Your task to perform on an android device: Find coffee shops on Maps Image 0: 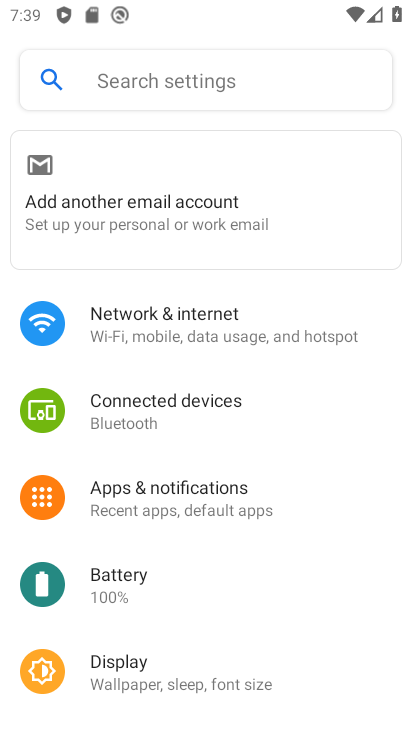
Step 0: press home button
Your task to perform on an android device: Find coffee shops on Maps Image 1: 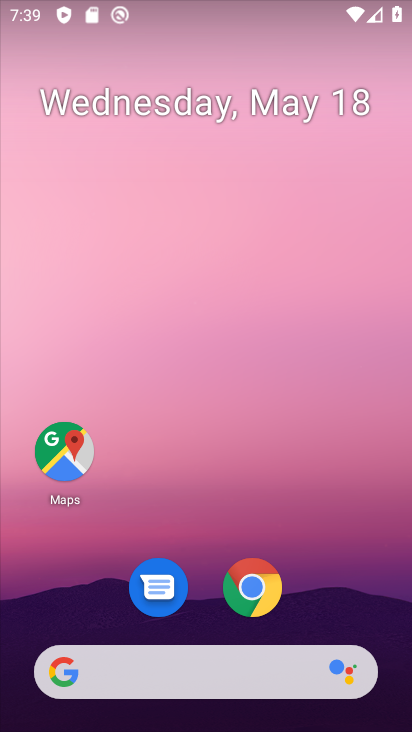
Step 1: click (66, 471)
Your task to perform on an android device: Find coffee shops on Maps Image 2: 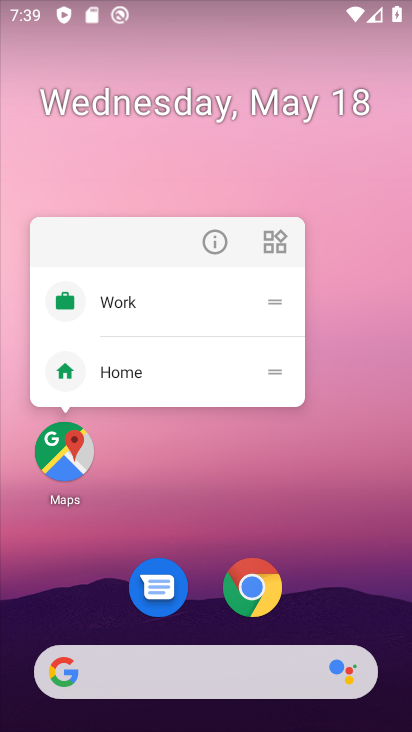
Step 2: click (137, 372)
Your task to perform on an android device: Find coffee shops on Maps Image 3: 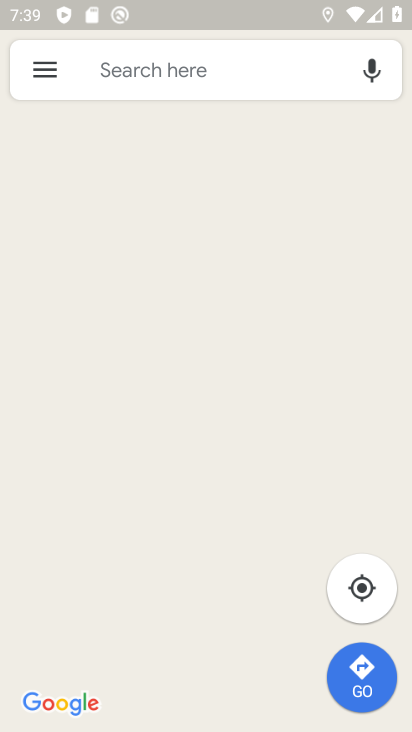
Step 3: click (126, 67)
Your task to perform on an android device: Find coffee shops on Maps Image 4: 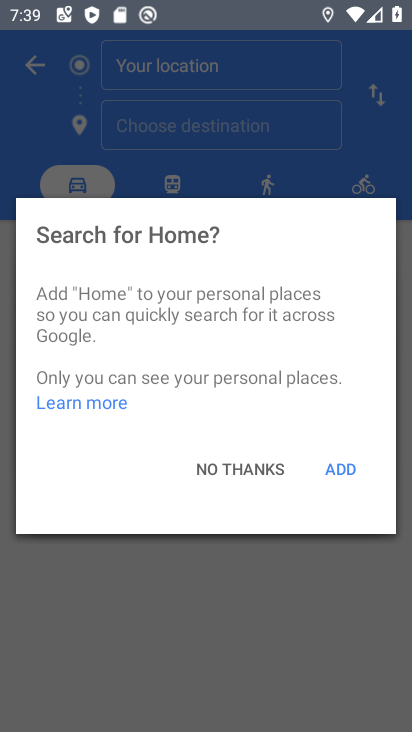
Step 4: click (236, 482)
Your task to perform on an android device: Find coffee shops on Maps Image 5: 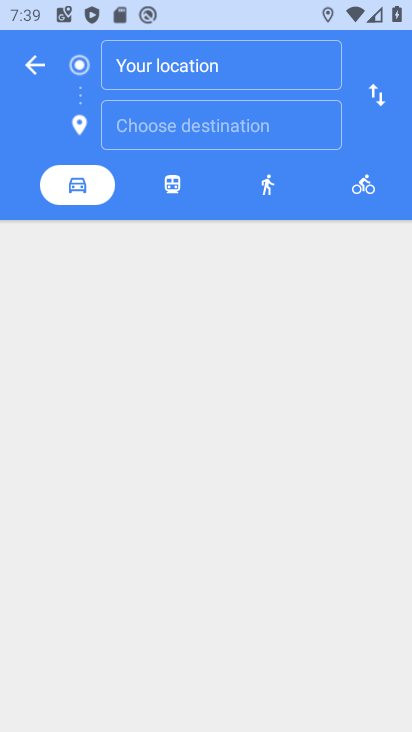
Step 5: click (30, 64)
Your task to perform on an android device: Find coffee shops on Maps Image 6: 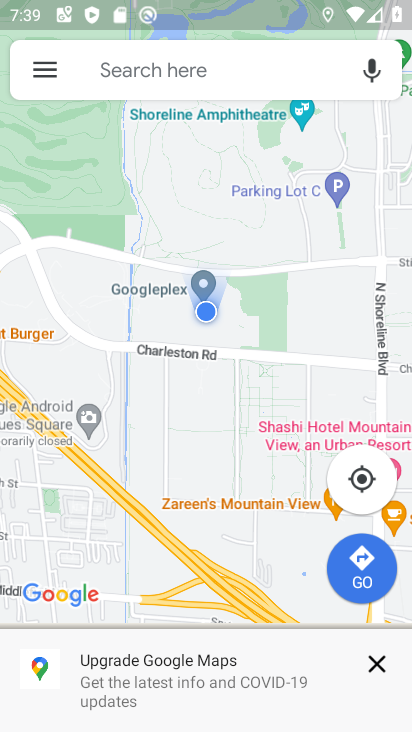
Step 6: click (146, 60)
Your task to perform on an android device: Find coffee shops on Maps Image 7: 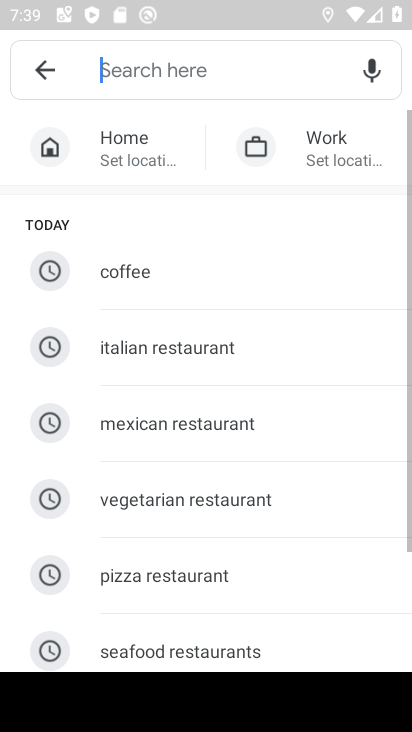
Step 7: click (114, 274)
Your task to perform on an android device: Find coffee shops on Maps Image 8: 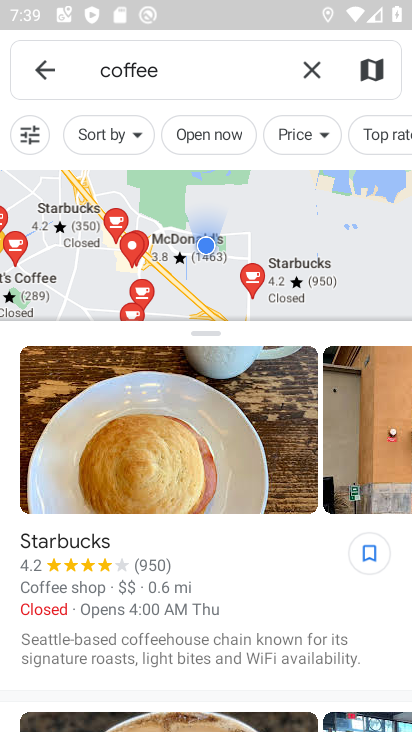
Step 8: task complete